Your task to perform on an android device: Go to Android settings Image 0: 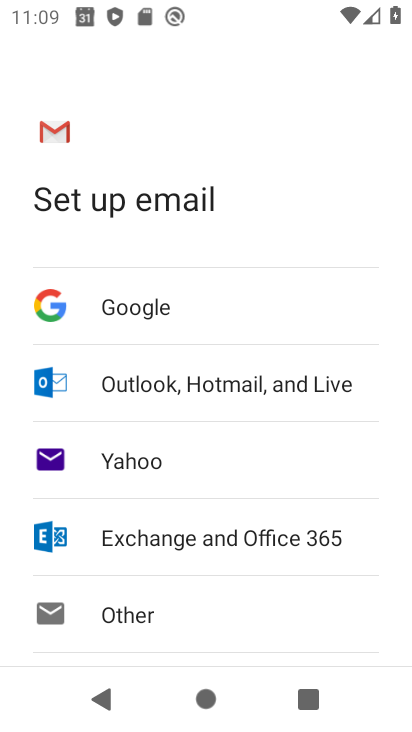
Step 0: press home button
Your task to perform on an android device: Go to Android settings Image 1: 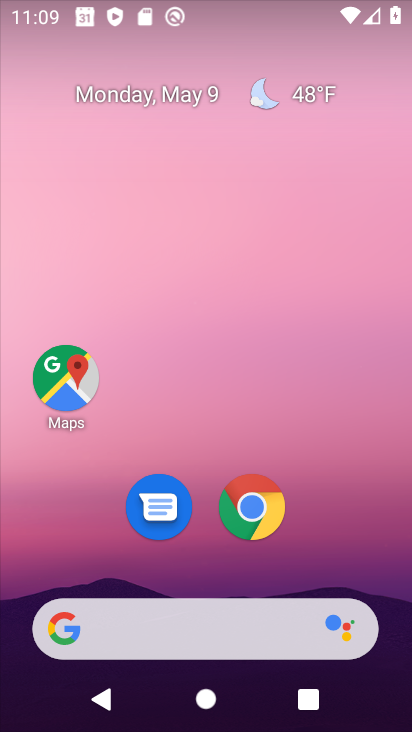
Step 1: drag from (273, 555) to (257, 118)
Your task to perform on an android device: Go to Android settings Image 2: 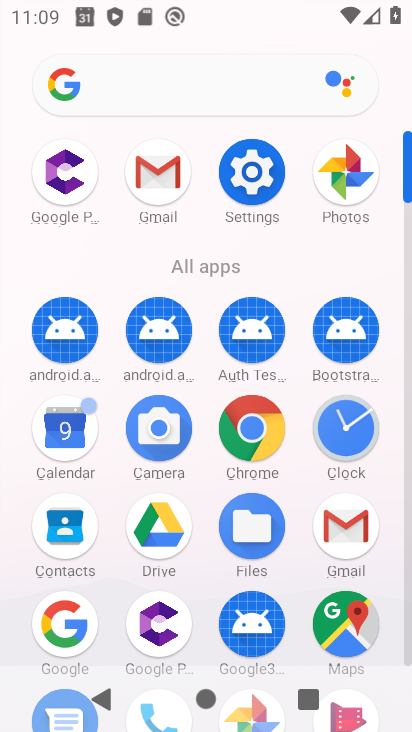
Step 2: click (247, 158)
Your task to perform on an android device: Go to Android settings Image 3: 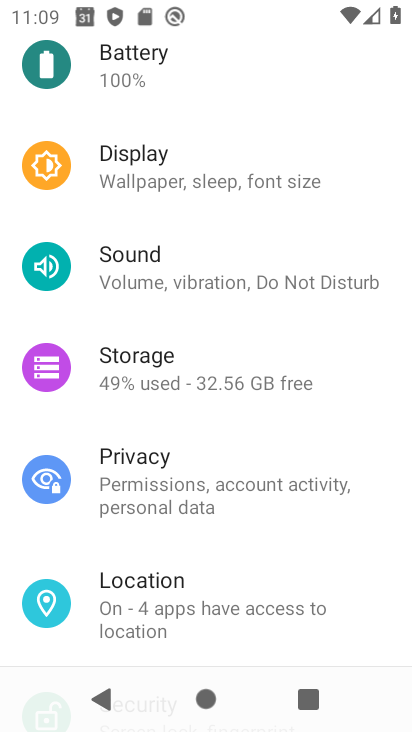
Step 3: drag from (214, 573) to (199, 259)
Your task to perform on an android device: Go to Android settings Image 4: 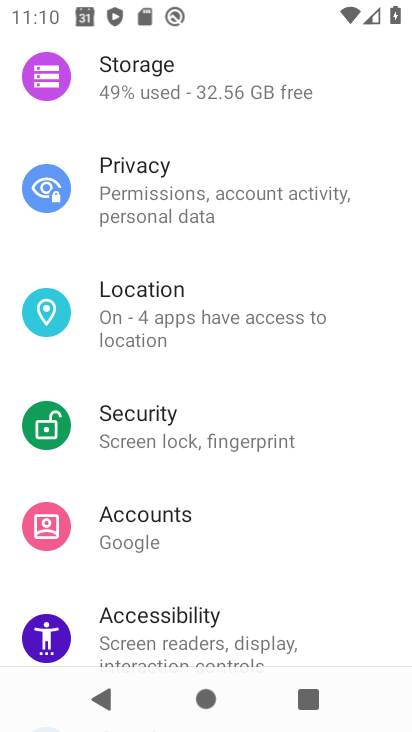
Step 4: drag from (209, 612) to (189, 233)
Your task to perform on an android device: Go to Android settings Image 5: 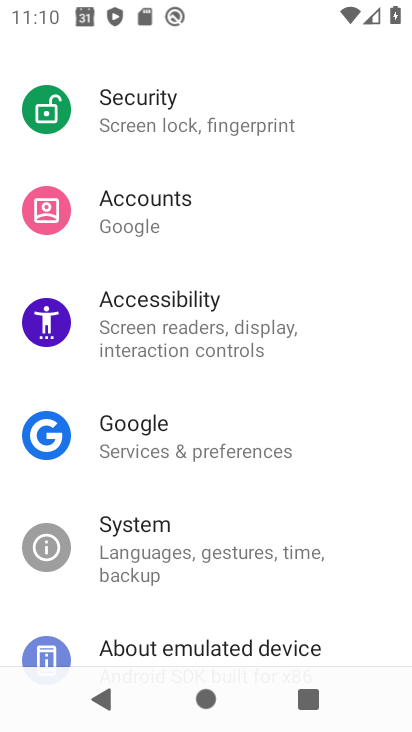
Step 5: drag from (229, 600) to (230, 309)
Your task to perform on an android device: Go to Android settings Image 6: 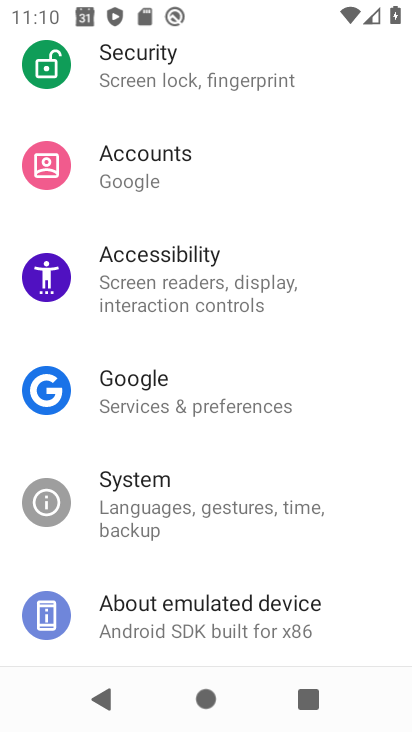
Step 6: click (231, 620)
Your task to perform on an android device: Go to Android settings Image 7: 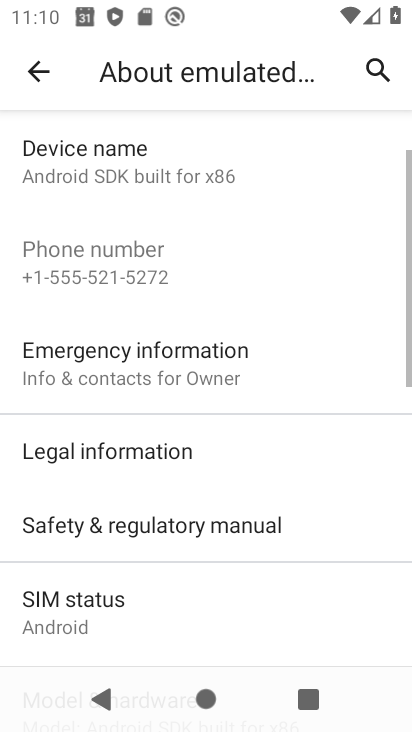
Step 7: drag from (211, 579) to (211, 336)
Your task to perform on an android device: Go to Android settings Image 8: 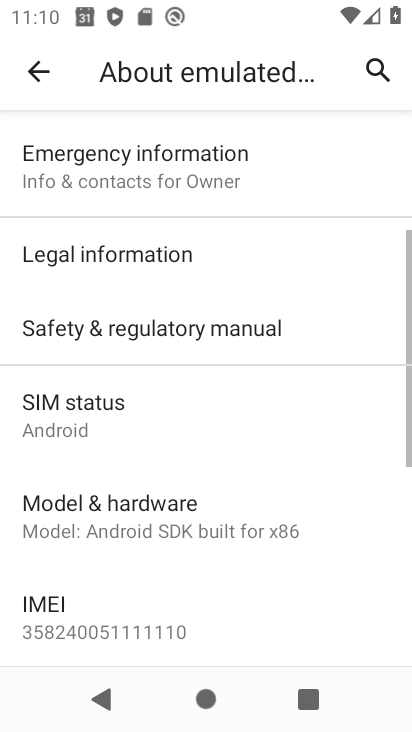
Step 8: drag from (150, 549) to (150, 259)
Your task to perform on an android device: Go to Android settings Image 9: 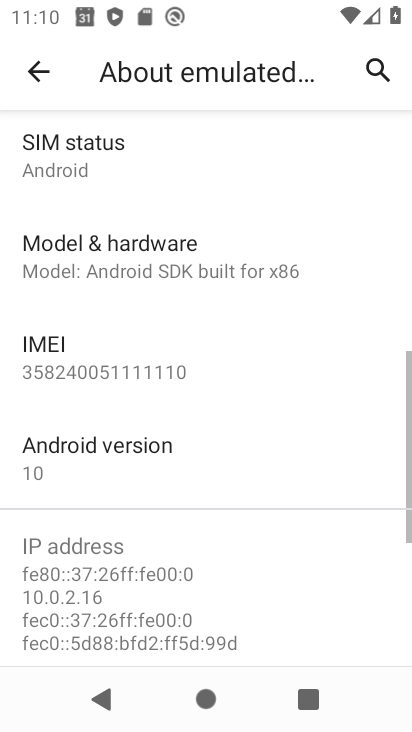
Step 9: click (165, 459)
Your task to perform on an android device: Go to Android settings Image 10: 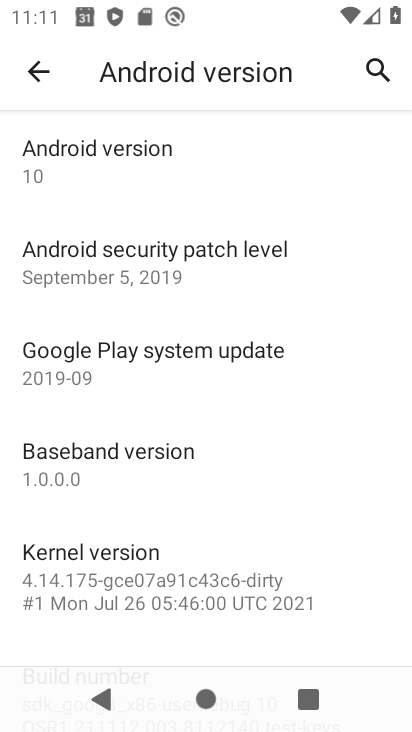
Step 10: task complete